Your task to perform on an android device: Open calendar and show me the fourth week of next month Image 0: 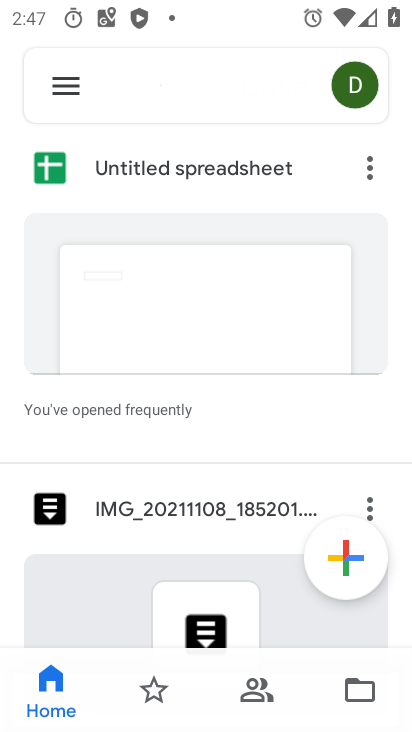
Step 0: press home button
Your task to perform on an android device: Open calendar and show me the fourth week of next month Image 1: 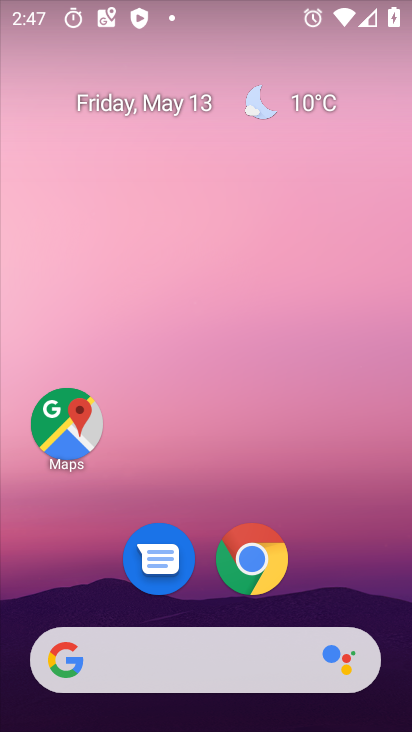
Step 1: drag from (212, 590) to (209, 174)
Your task to perform on an android device: Open calendar and show me the fourth week of next month Image 2: 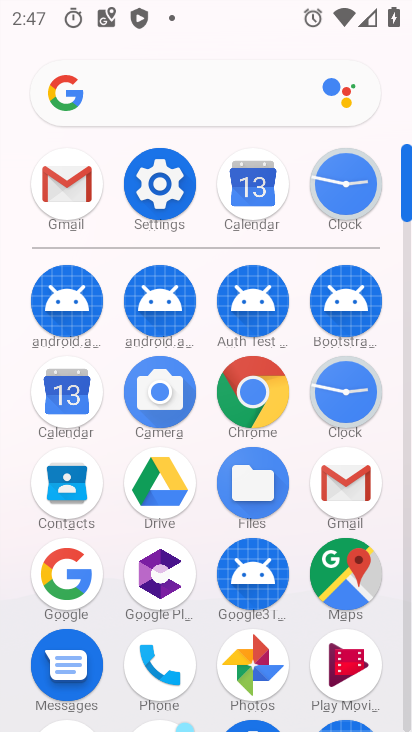
Step 2: click (67, 402)
Your task to perform on an android device: Open calendar and show me the fourth week of next month Image 3: 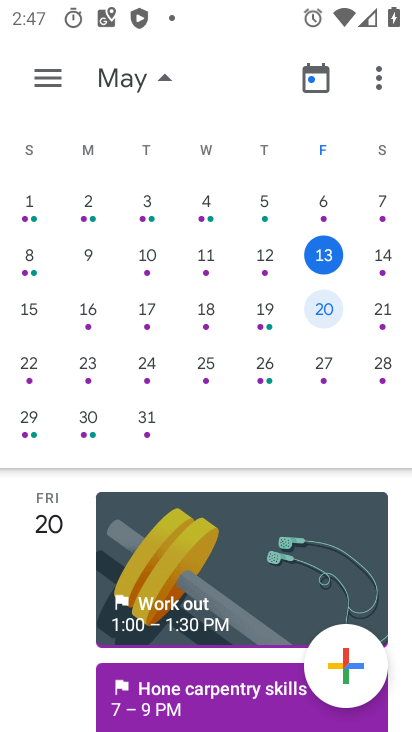
Step 3: drag from (347, 375) to (56, 303)
Your task to perform on an android device: Open calendar and show me the fourth week of next month Image 4: 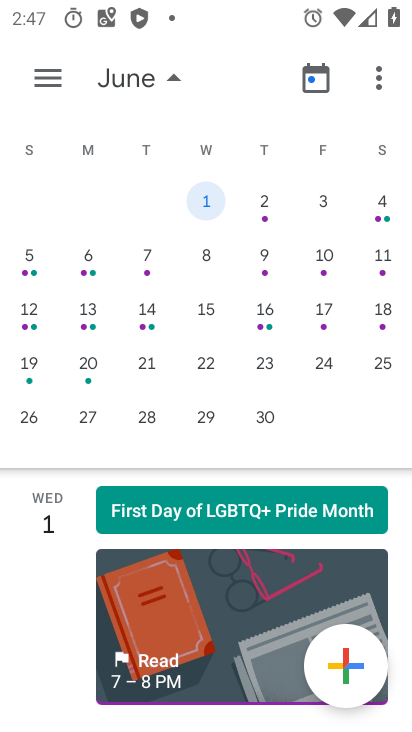
Step 4: click (80, 367)
Your task to perform on an android device: Open calendar and show me the fourth week of next month Image 5: 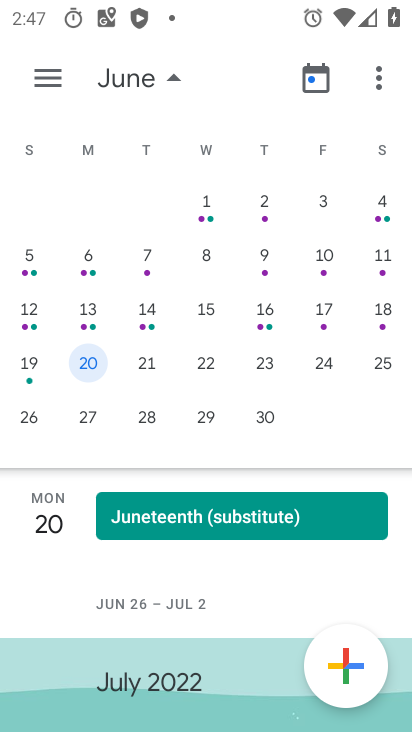
Step 5: click (15, 359)
Your task to perform on an android device: Open calendar and show me the fourth week of next month Image 6: 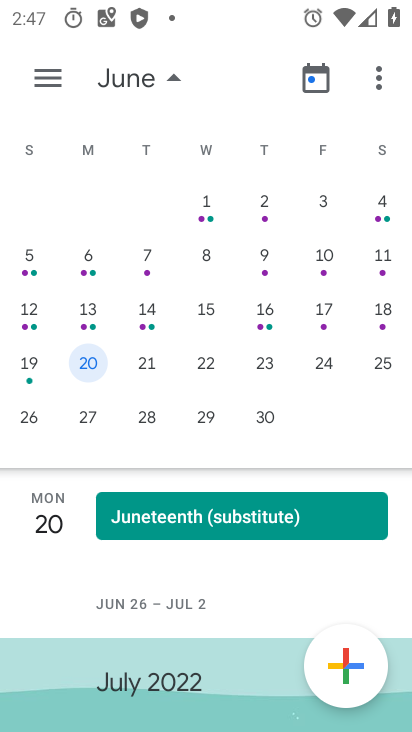
Step 6: task complete